Your task to perform on an android device: Go to Amazon Image 0: 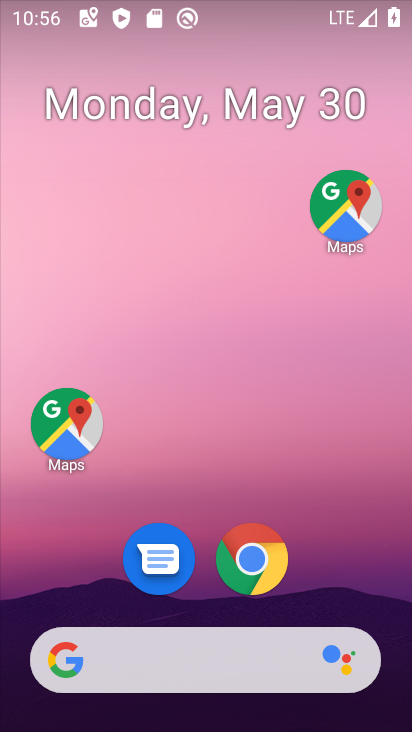
Step 0: click (259, 563)
Your task to perform on an android device: Go to Amazon Image 1: 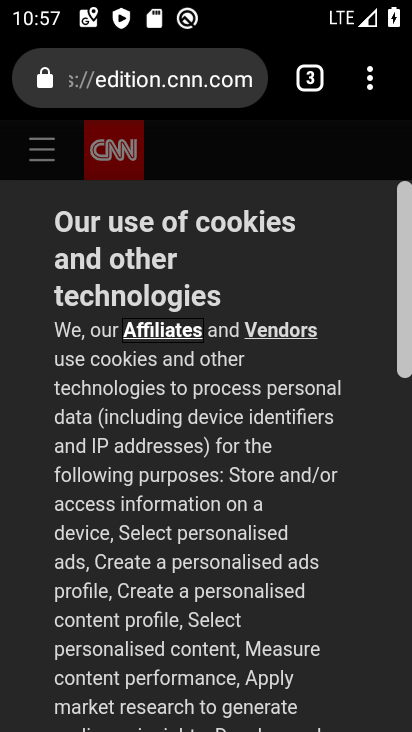
Step 1: click (215, 73)
Your task to perform on an android device: Go to Amazon Image 2: 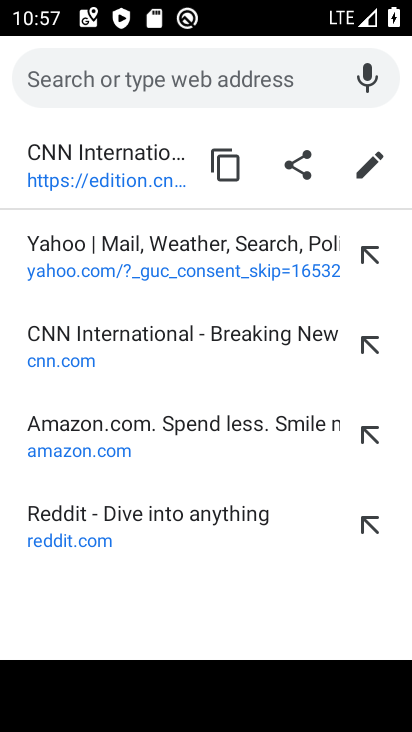
Step 2: type "amazon"
Your task to perform on an android device: Go to Amazon Image 3: 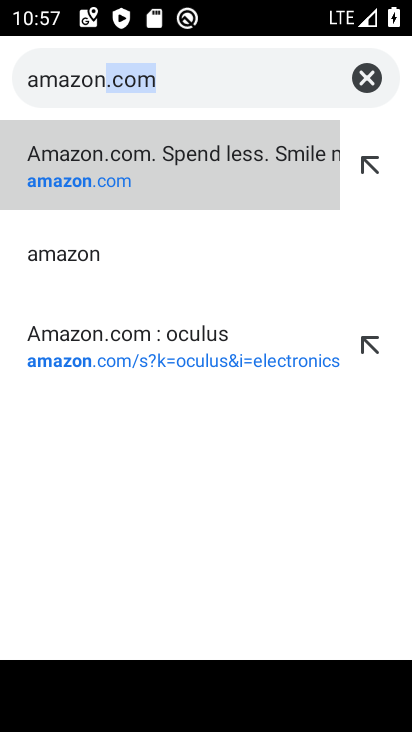
Step 3: click (106, 183)
Your task to perform on an android device: Go to Amazon Image 4: 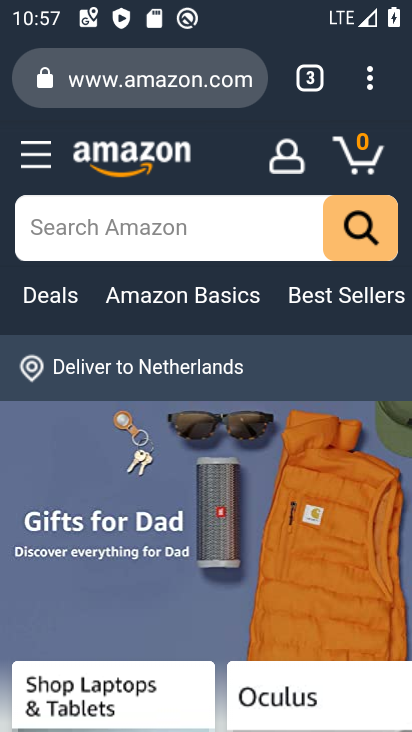
Step 4: task complete